Your task to perform on an android device: turn off data saver in the chrome app Image 0: 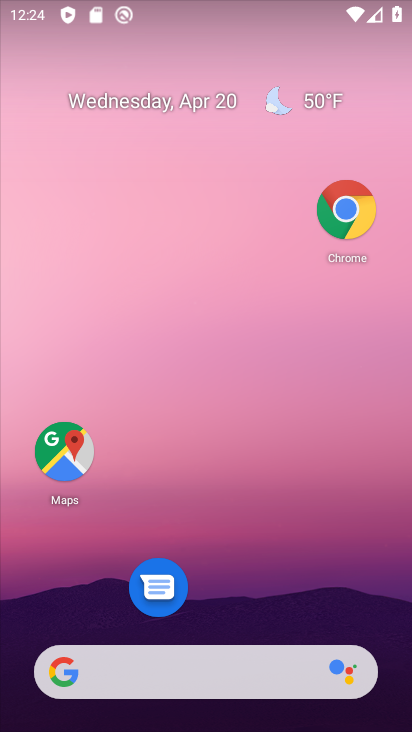
Step 0: click (348, 182)
Your task to perform on an android device: turn off data saver in the chrome app Image 1: 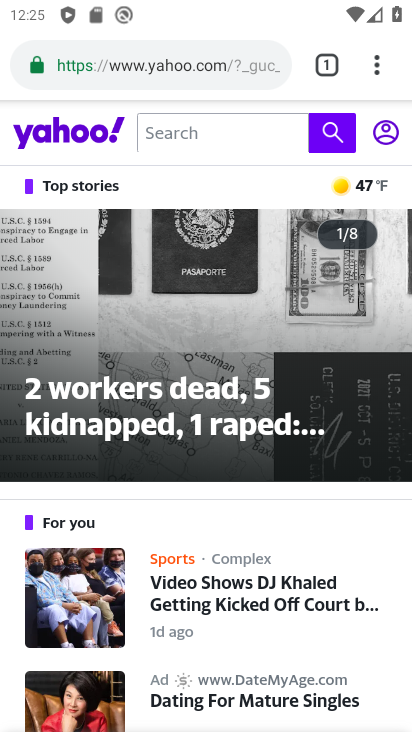
Step 1: click (382, 72)
Your task to perform on an android device: turn off data saver in the chrome app Image 2: 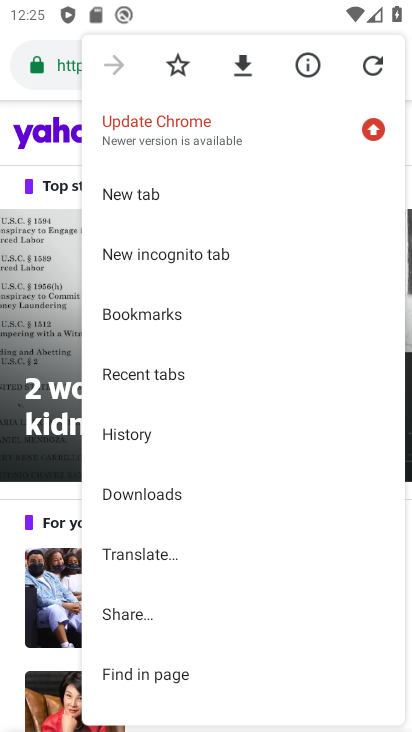
Step 2: drag from (168, 595) to (225, 124)
Your task to perform on an android device: turn off data saver in the chrome app Image 3: 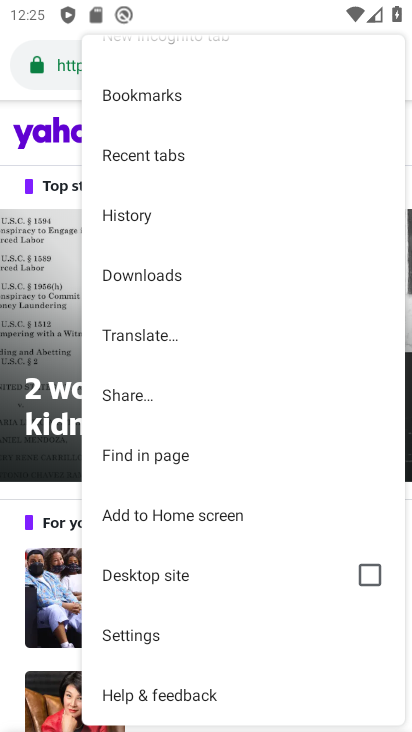
Step 3: click (149, 643)
Your task to perform on an android device: turn off data saver in the chrome app Image 4: 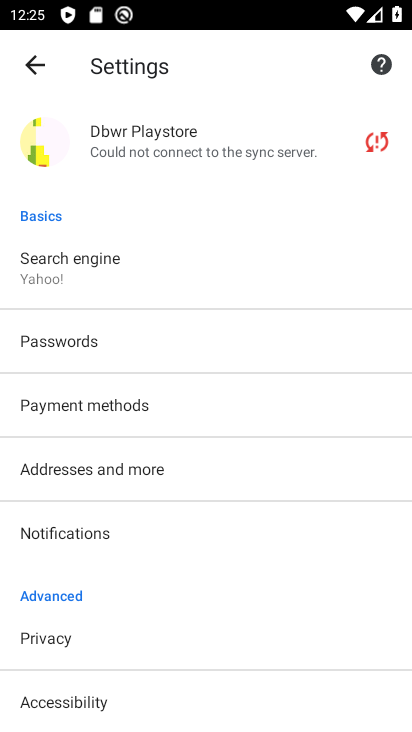
Step 4: drag from (97, 599) to (193, 124)
Your task to perform on an android device: turn off data saver in the chrome app Image 5: 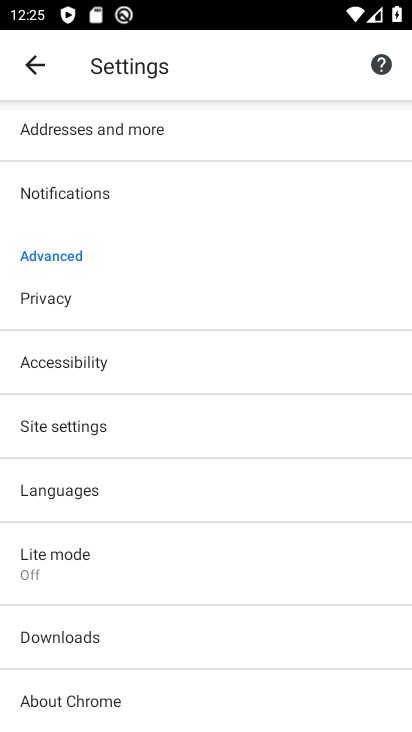
Step 5: click (96, 572)
Your task to perform on an android device: turn off data saver in the chrome app Image 6: 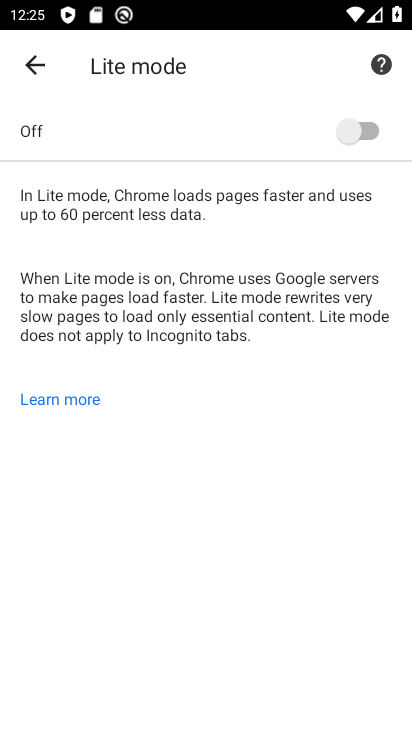
Step 6: task complete